Your task to perform on an android device: turn on sleep mode Image 0: 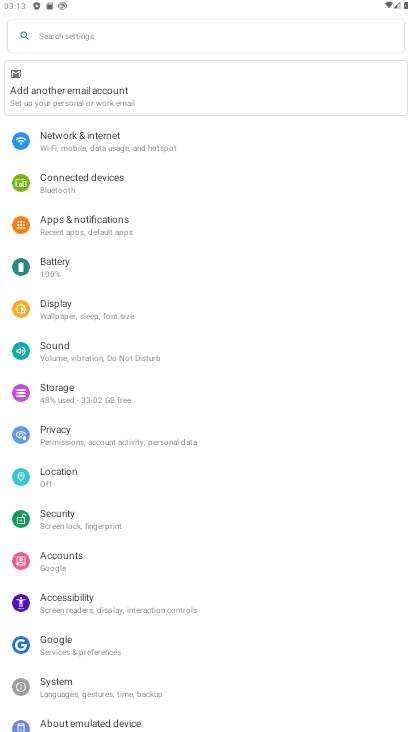
Step 0: click (113, 138)
Your task to perform on an android device: turn on sleep mode Image 1: 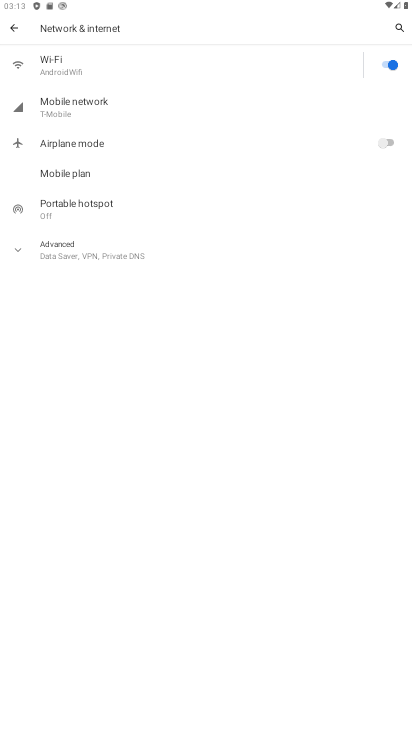
Step 1: click (15, 20)
Your task to perform on an android device: turn on sleep mode Image 2: 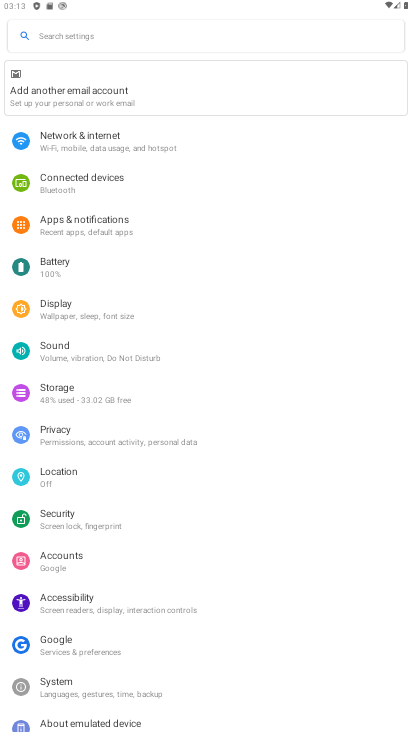
Step 2: click (59, 306)
Your task to perform on an android device: turn on sleep mode Image 3: 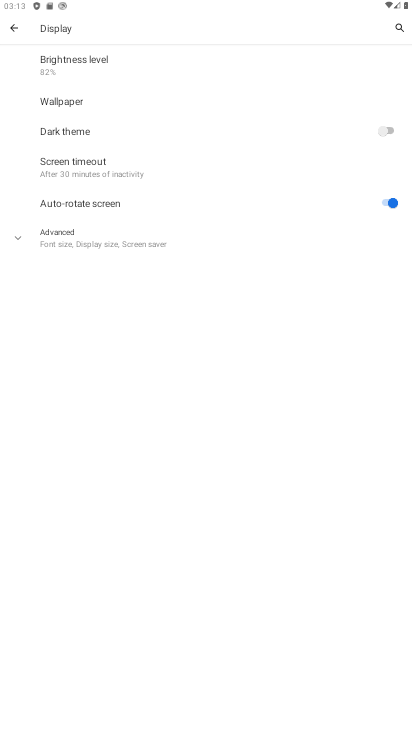
Step 3: click (99, 166)
Your task to perform on an android device: turn on sleep mode Image 4: 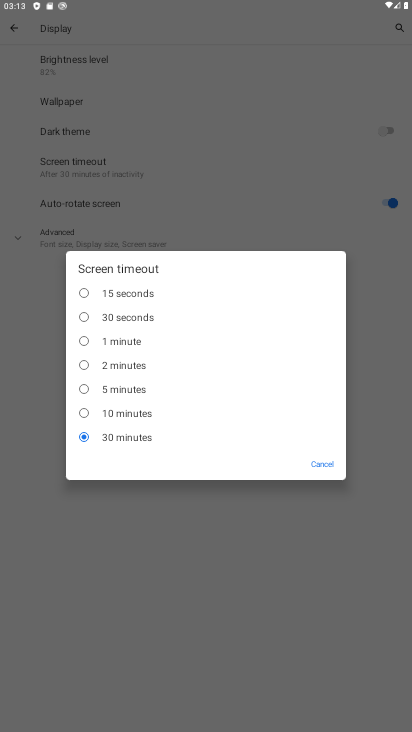
Step 4: task complete